Your task to perform on an android device: What's the weather? Image 0: 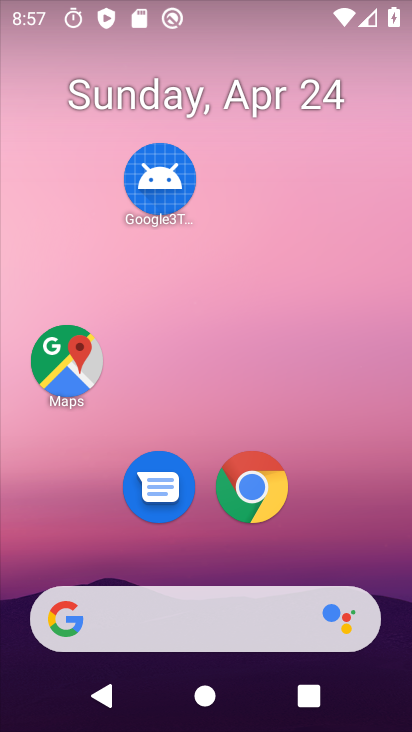
Step 0: click (247, 497)
Your task to perform on an android device: What's the weather? Image 1: 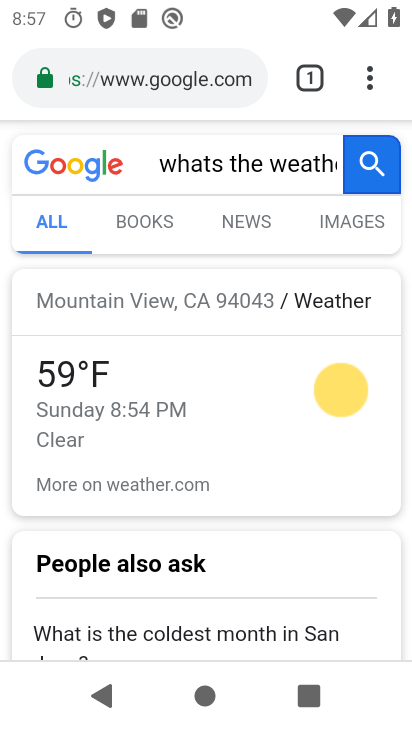
Step 1: task complete